Your task to perform on an android device: open app "Grab" (install if not already installed) Image 0: 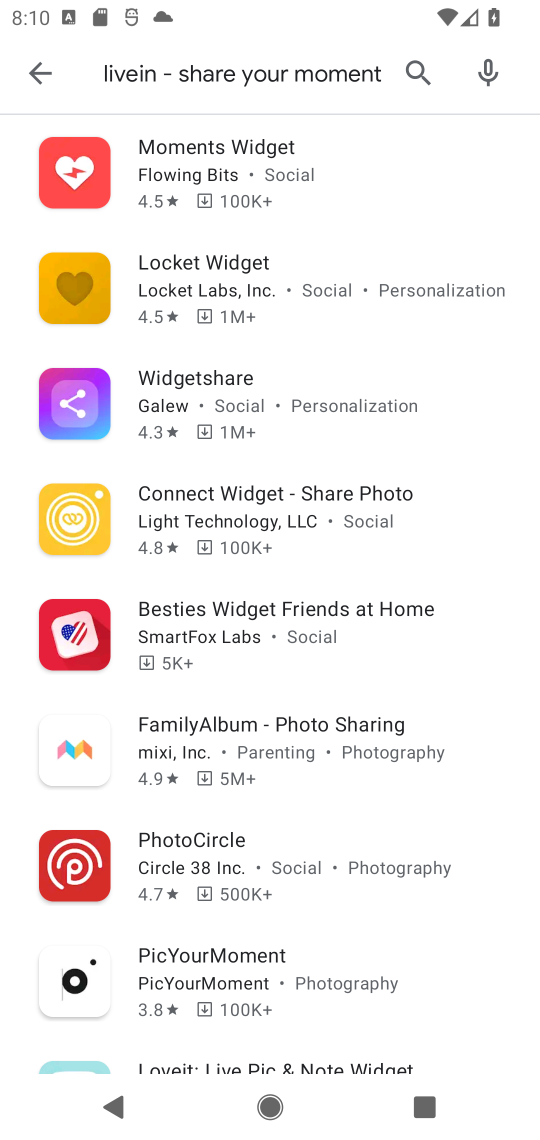
Step 0: click (412, 66)
Your task to perform on an android device: open app "Grab" (install if not already installed) Image 1: 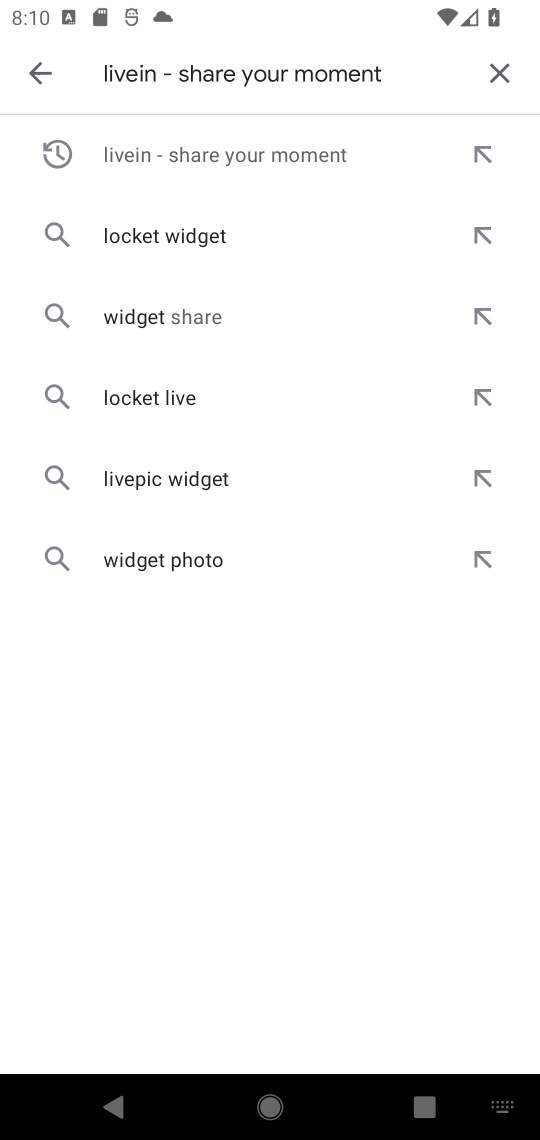
Step 1: click (499, 69)
Your task to perform on an android device: open app "Grab" (install if not already installed) Image 2: 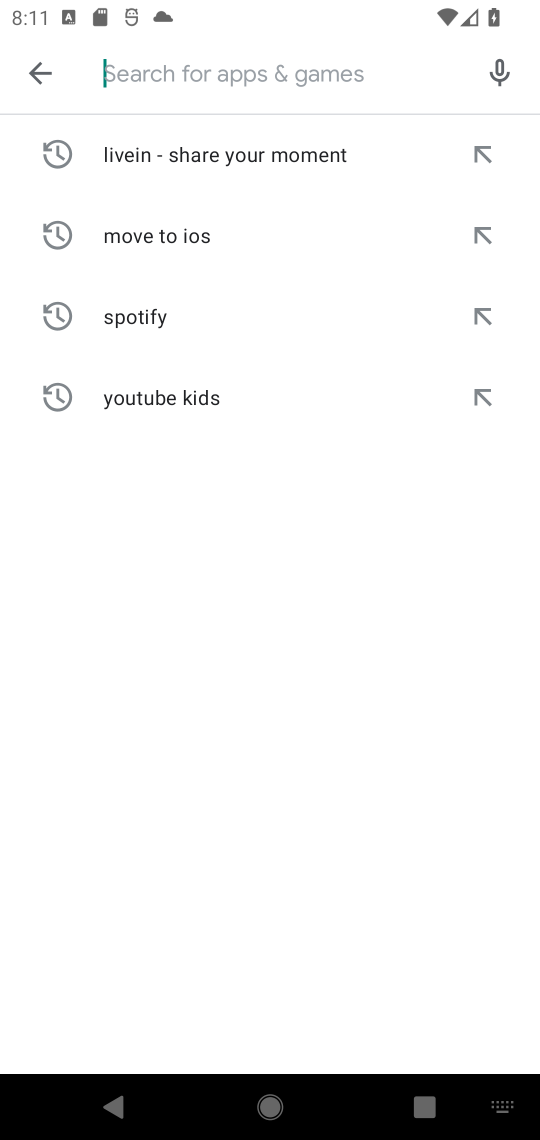
Step 2: type "Grab"
Your task to perform on an android device: open app "Grab" (install if not already installed) Image 3: 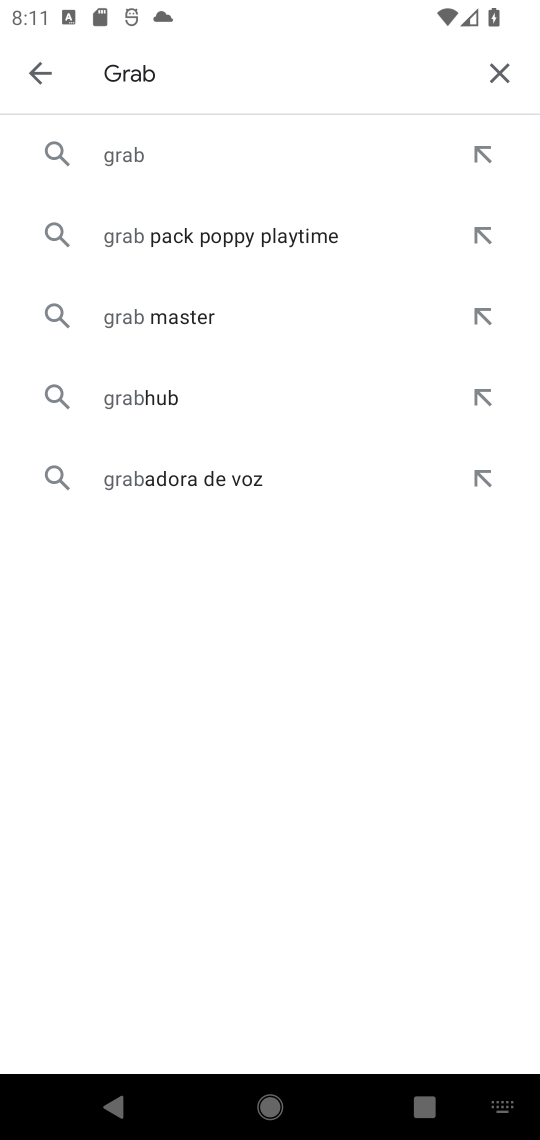
Step 3: click (128, 158)
Your task to perform on an android device: open app "Grab" (install if not already installed) Image 4: 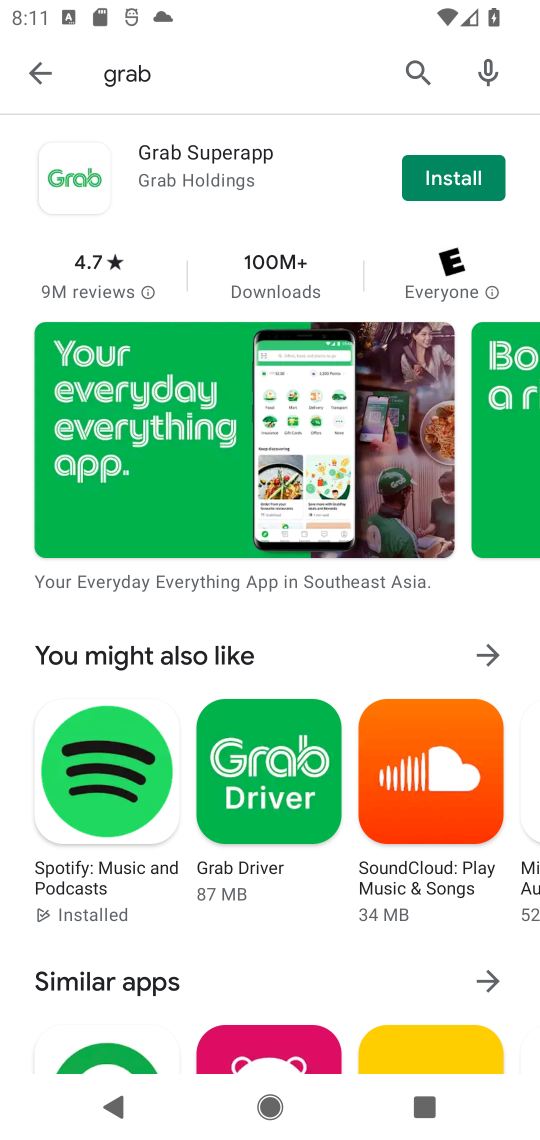
Step 4: click (464, 175)
Your task to perform on an android device: open app "Grab" (install if not already installed) Image 5: 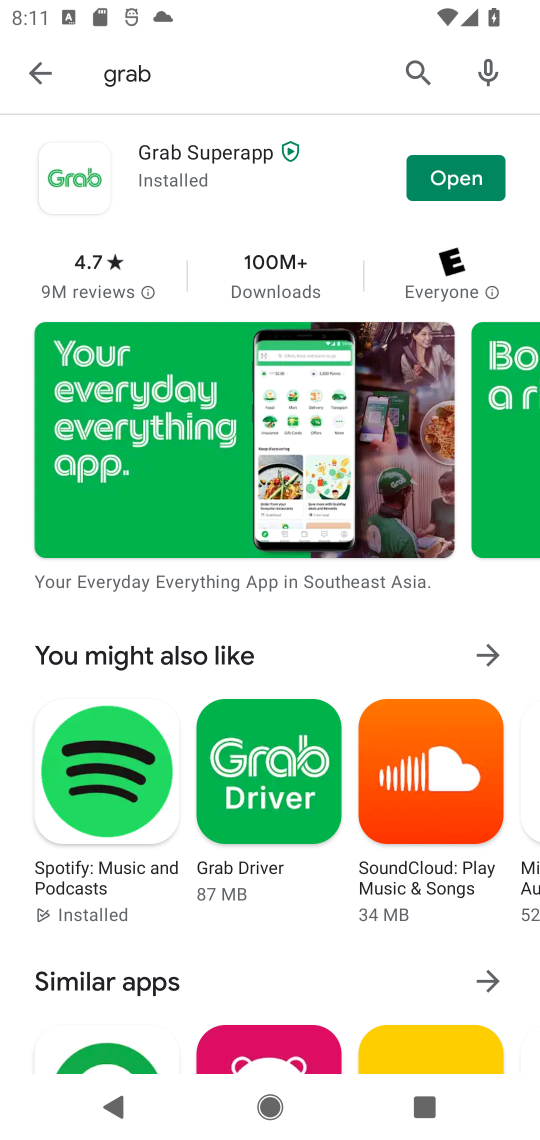
Step 5: click (446, 182)
Your task to perform on an android device: open app "Grab" (install if not already installed) Image 6: 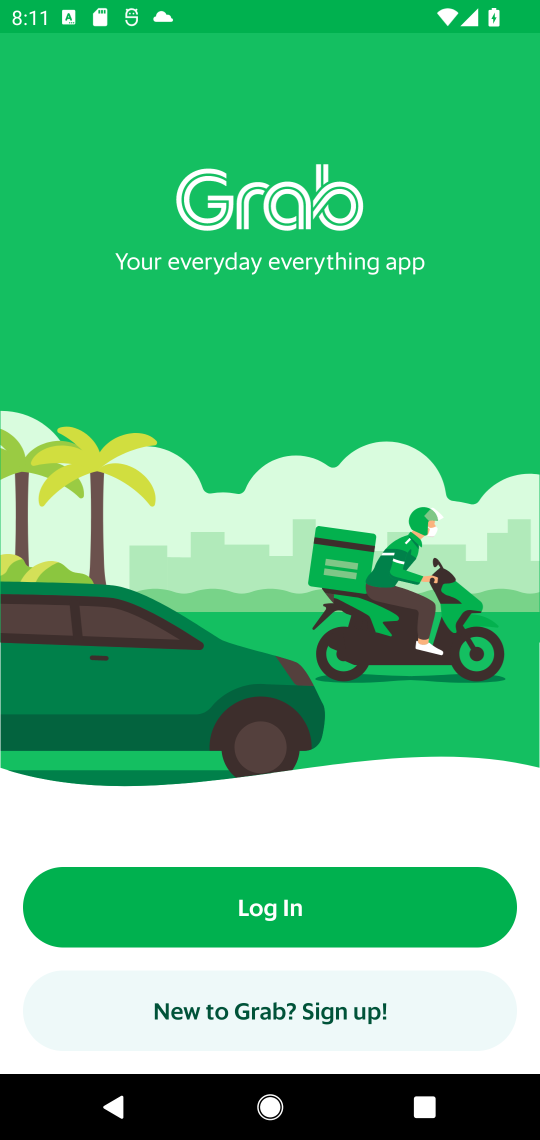
Step 6: task complete